Your task to perform on an android device: Open the calendar app, open the side menu, and click the "Day" option Image 0: 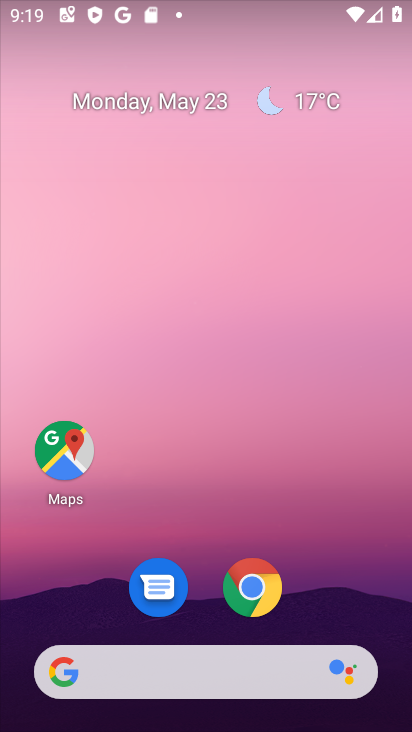
Step 0: drag from (184, 581) to (242, 67)
Your task to perform on an android device: Open the calendar app, open the side menu, and click the "Day" option Image 1: 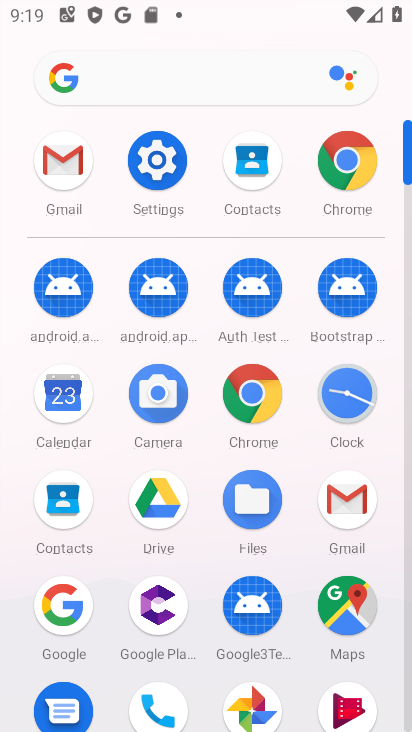
Step 1: click (70, 392)
Your task to perform on an android device: Open the calendar app, open the side menu, and click the "Day" option Image 2: 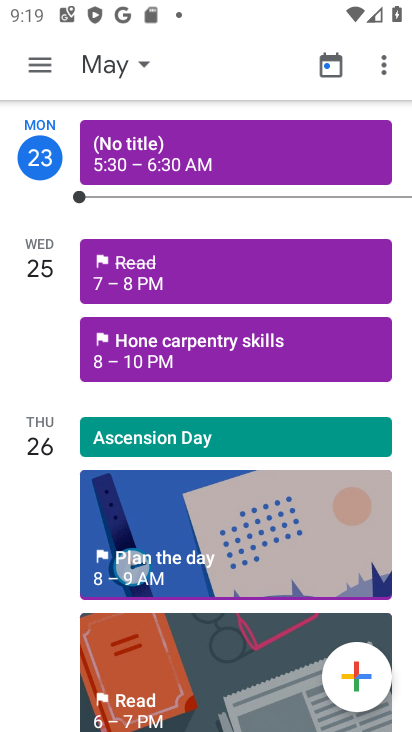
Step 2: click (25, 55)
Your task to perform on an android device: Open the calendar app, open the side menu, and click the "Day" option Image 3: 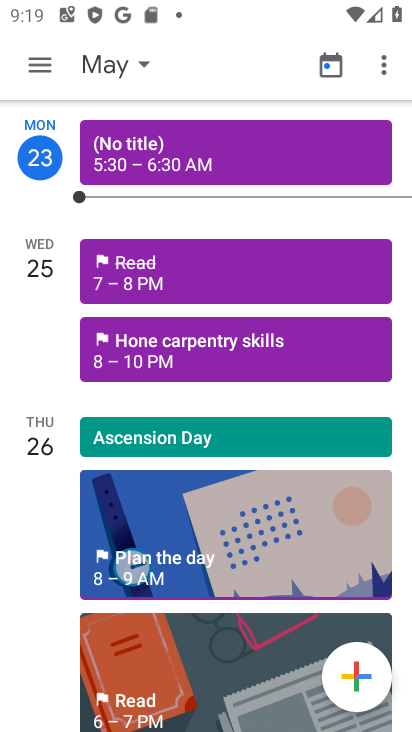
Step 3: click (38, 63)
Your task to perform on an android device: Open the calendar app, open the side menu, and click the "Day" option Image 4: 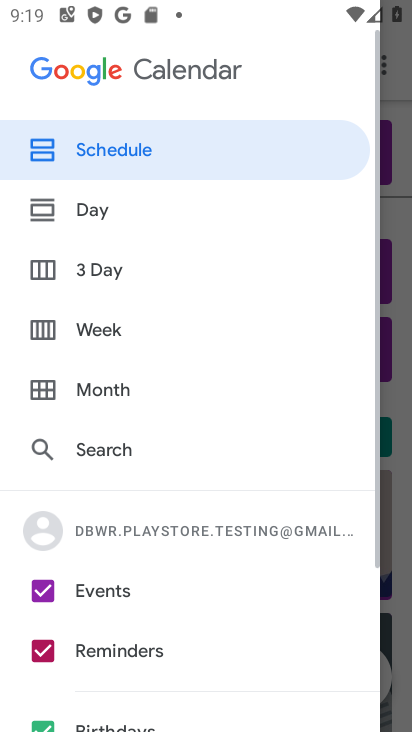
Step 4: click (95, 197)
Your task to perform on an android device: Open the calendar app, open the side menu, and click the "Day" option Image 5: 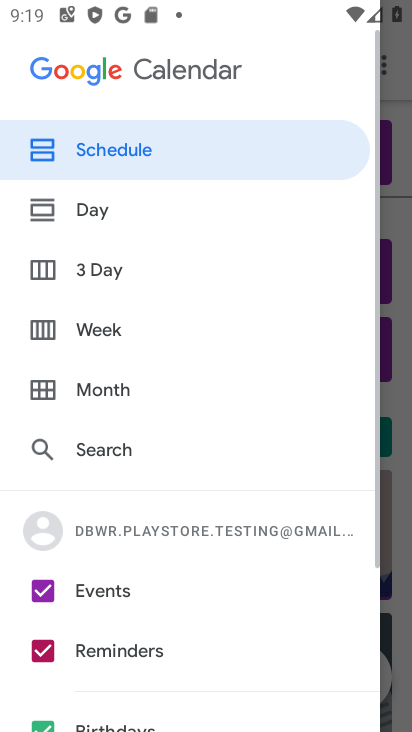
Step 5: click (116, 210)
Your task to perform on an android device: Open the calendar app, open the side menu, and click the "Day" option Image 6: 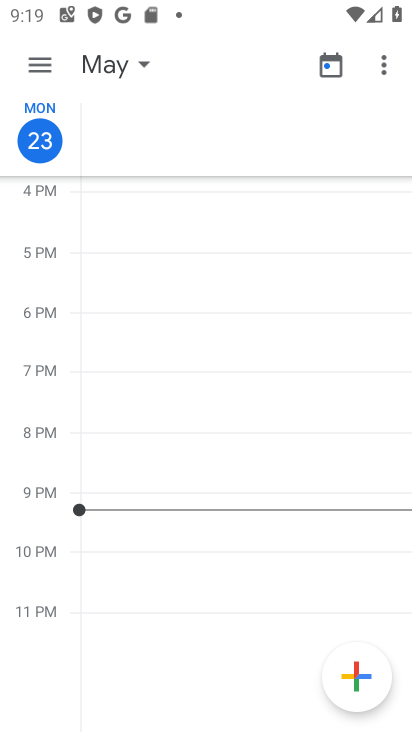
Step 6: task complete